Your task to perform on an android device: open chrome and create a bookmark for the current page Image 0: 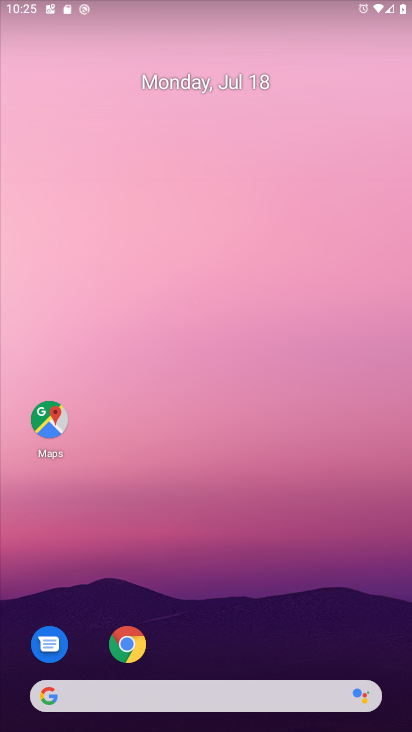
Step 0: click (131, 622)
Your task to perform on an android device: open chrome and create a bookmark for the current page Image 1: 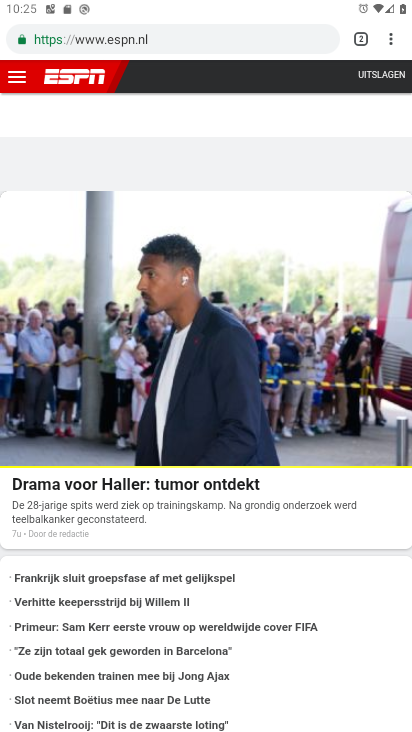
Step 1: click (390, 40)
Your task to perform on an android device: open chrome and create a bookmark for the current page Image 2: 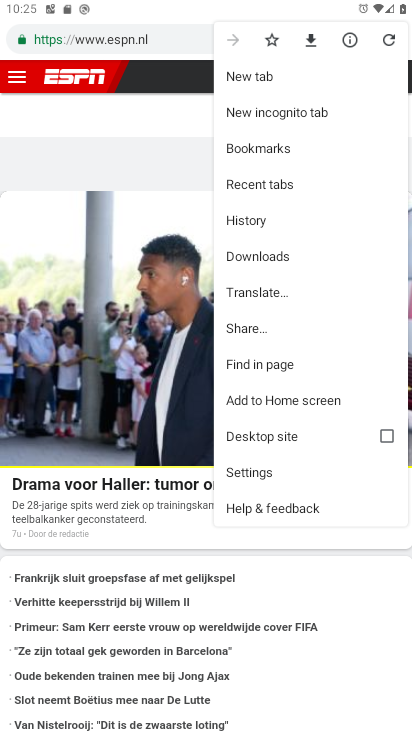
Step 2: click (275, 40)
Your task to perform on an android device: open chrome and create a bookmark for the current page Image 3: 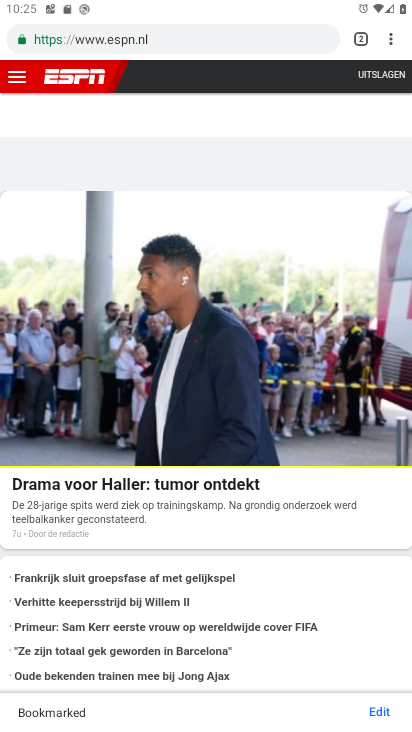
Step 3: task complete